Your task to perform on an android device: open app "PUBG MOBILE" (install if not already installed) Image 0: 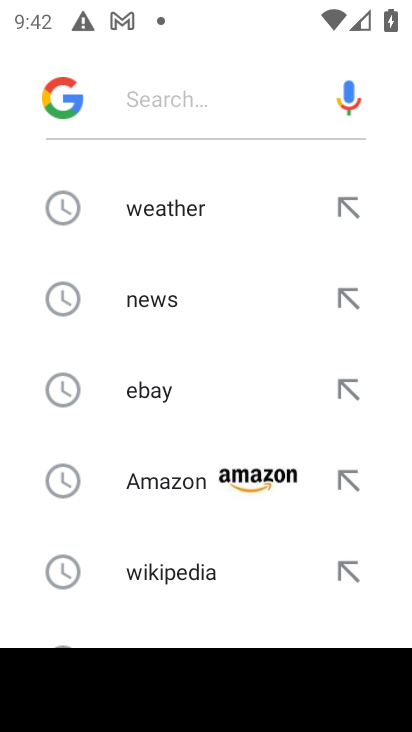
Step 0: press home button
Your task to perform on an android device: open app "PUBG MOBILE" (install if not already installed) Image 1: 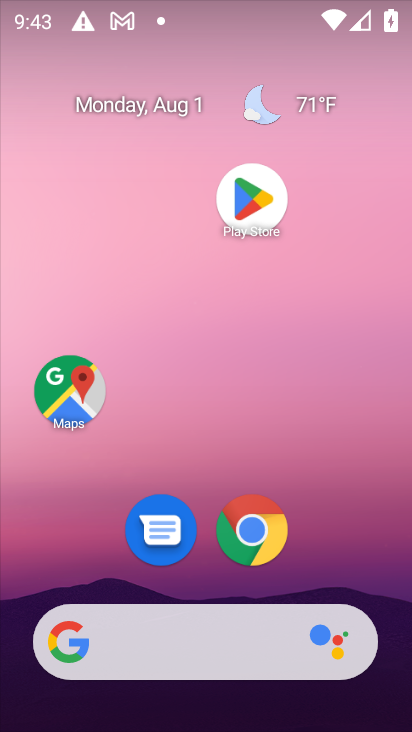
Step 1: click (261, 189)
Your task to perform on an android device: open app "PUBG MOBILE" (install if not already installed) Image 2: 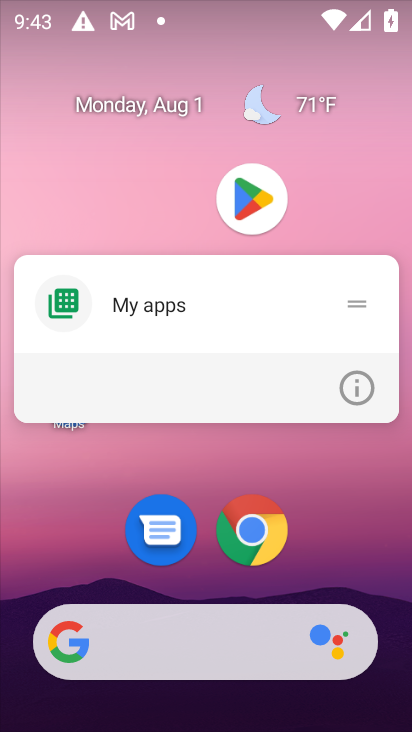
Step 2: click (261, 189)
Your task to perform on an android device: open app "PUBG MOBILE" (install if not already installed) Image 3: 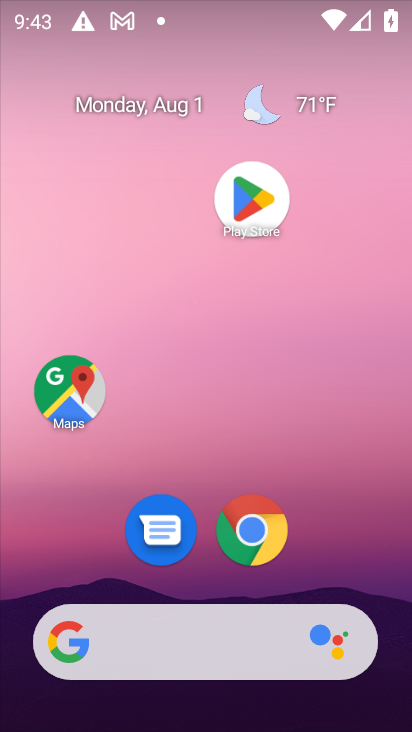
Step 3: click (261, 189)
Your task to perform on an android device: open app "PUBG MOBILE" (install if not already installed) Image 4: 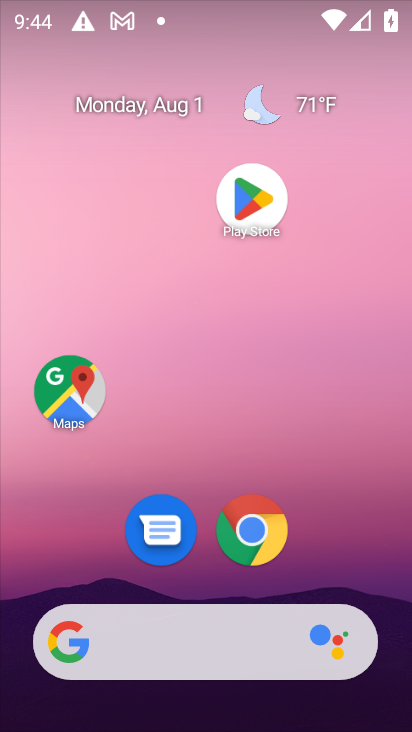
Step 4: click (261, 189)
Your task to perform on an android device: open app "PUBG MOBILE" (install if not already installed) Image 5: 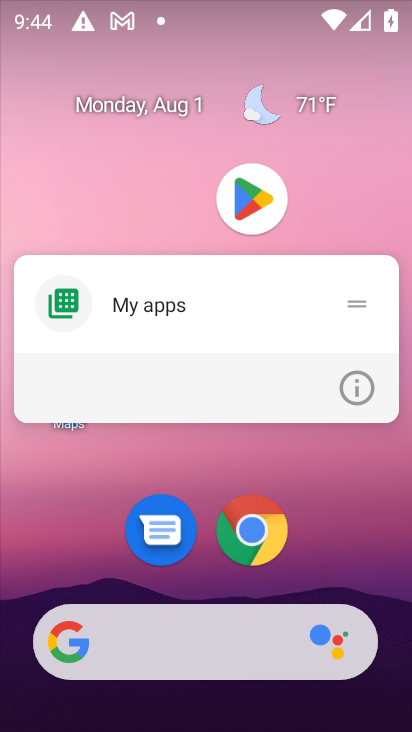
Step 5: click (248, 193)
Your task to perform on an android device: open app "PUBG MOBILE" (install if not already installed) Image 6: 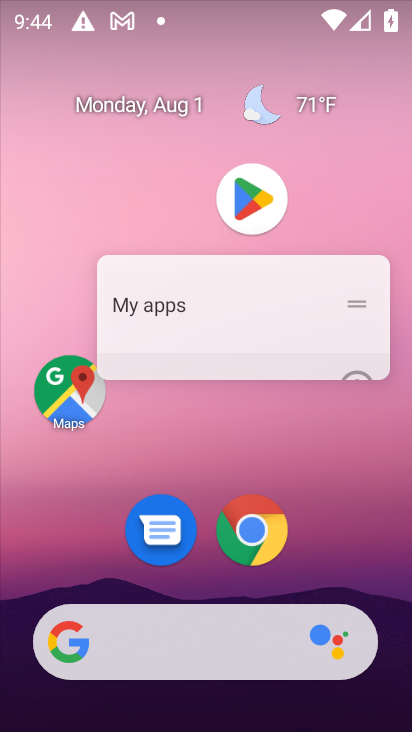
Step 6: click (248, 193)
Your task to perform on an android device: open app "PUBG MOBILE" (install if not already installed) Image 7: 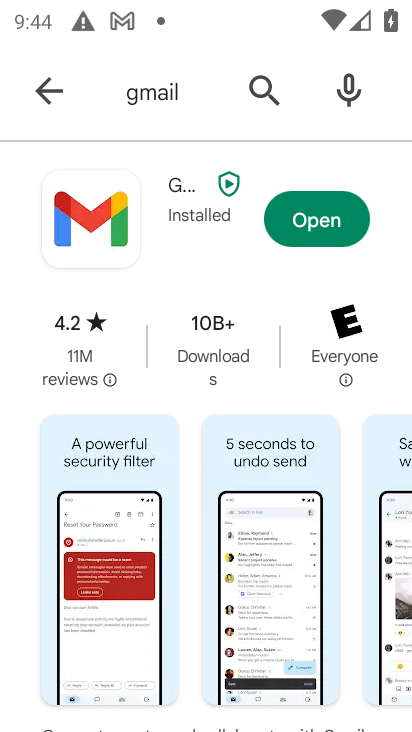
Step 7: click (272, 82)
Your task to perform on an android device: open app "PUBG MOBILE" (install if not already installed) Image 8: 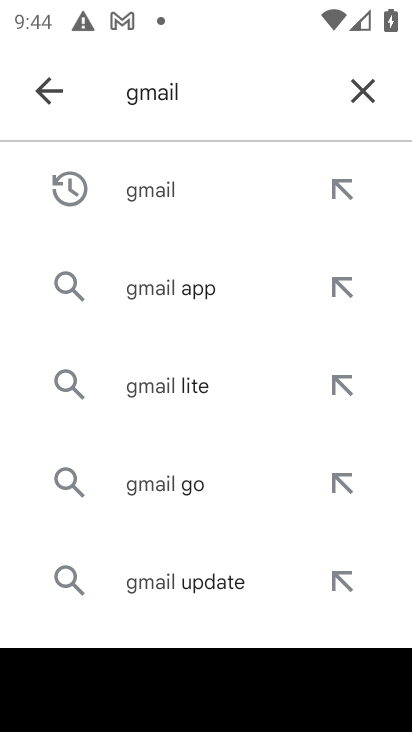
Step 8: click (356, 90)
Your task to perform on an android device: open app "PUBG MOBILE" (install if not already installed) Image 9: 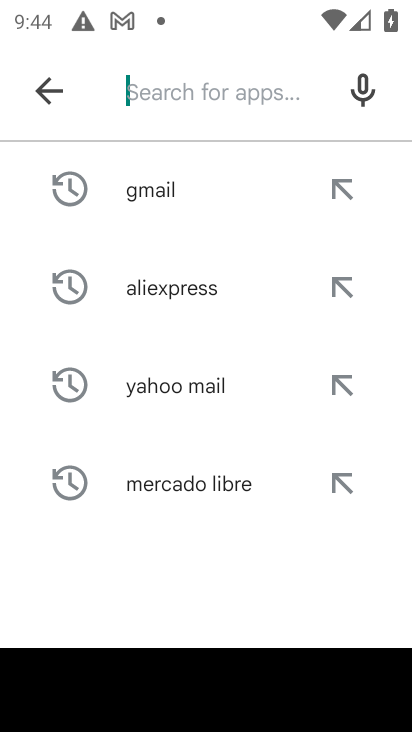
Step 9: type "pubg mobile "
Your task to perform on an android device: open app "PUBG MOBILE" (install if not already installed) Image 10: 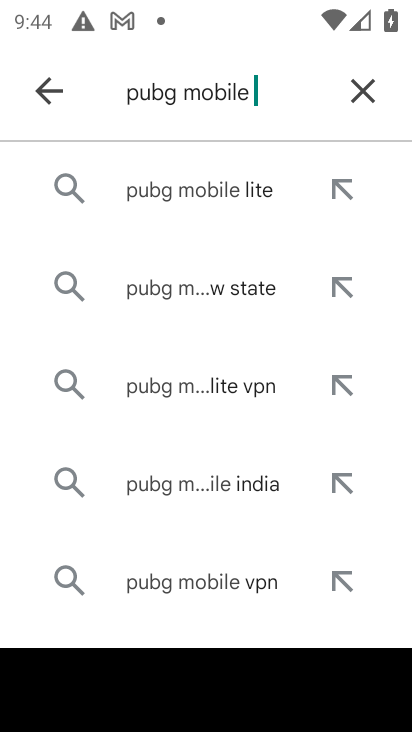
Step 10: type ""
Your task to perform on an android device: open app "PUBG MOBILE" (install if not already installed) Image 11: 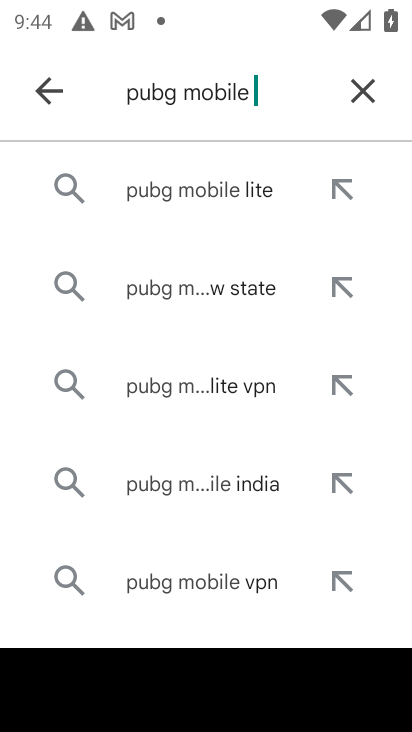
Step 11: press enter
Your task to perform on an android device: open app "PUBG MOBILE" (install if not already installed) Image 12: 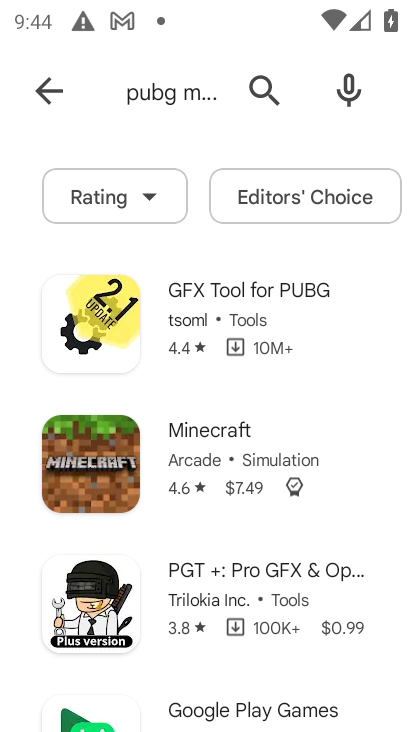
Step 12: task complete